Your task to perform on an android device: View the shopping cart on newegg. Search for usb-a to usb-b on newegg, select the first entry, add it to the cart, then select checkout. Image 0: 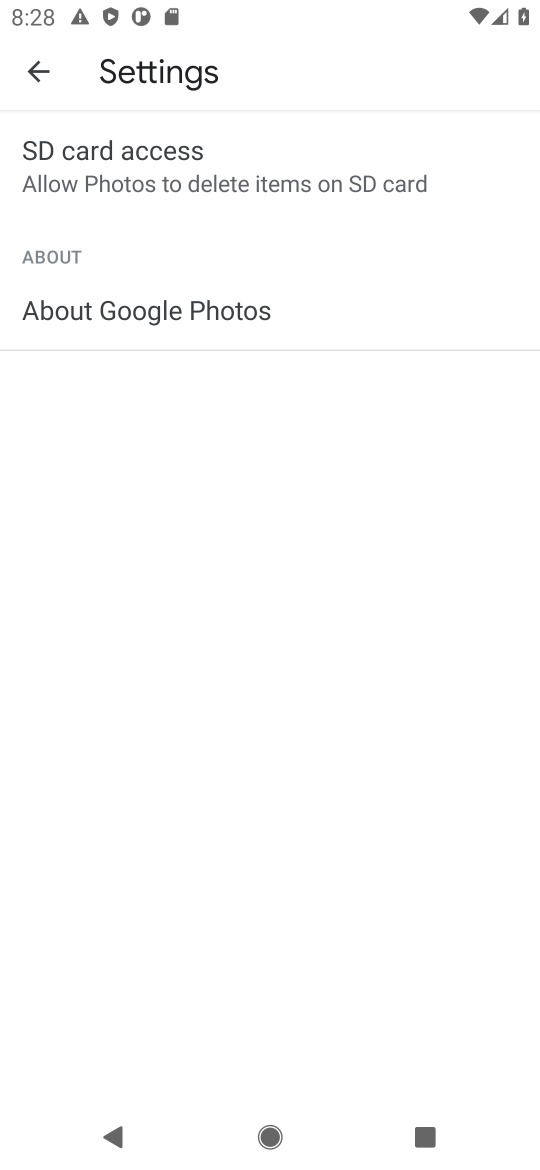
Step 0: press home button
Your task to perform on an android device: View the shopping cart on newegg. Search for usb-a to usb-b on newegg, select the first entry, add it to the cart, then select checkout. Image 1: 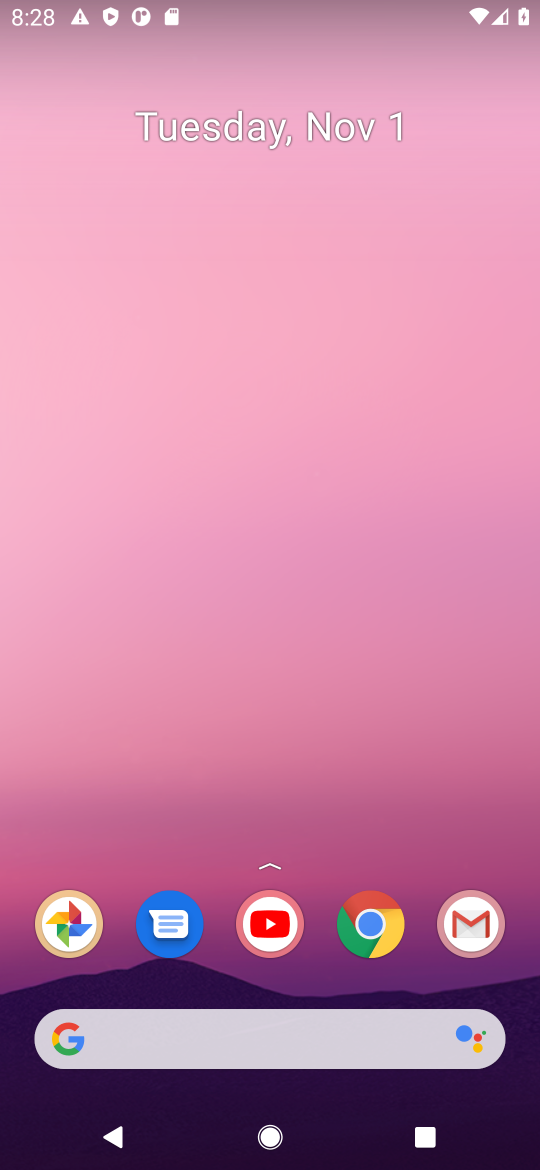
Step 1: click (117, 1046)
Your task to perform on an android device: View the shopping cart on newegg. Search for usb-a to usb-b on newegg, select the first entry, add it to the cart, then select checkout. Image 2: 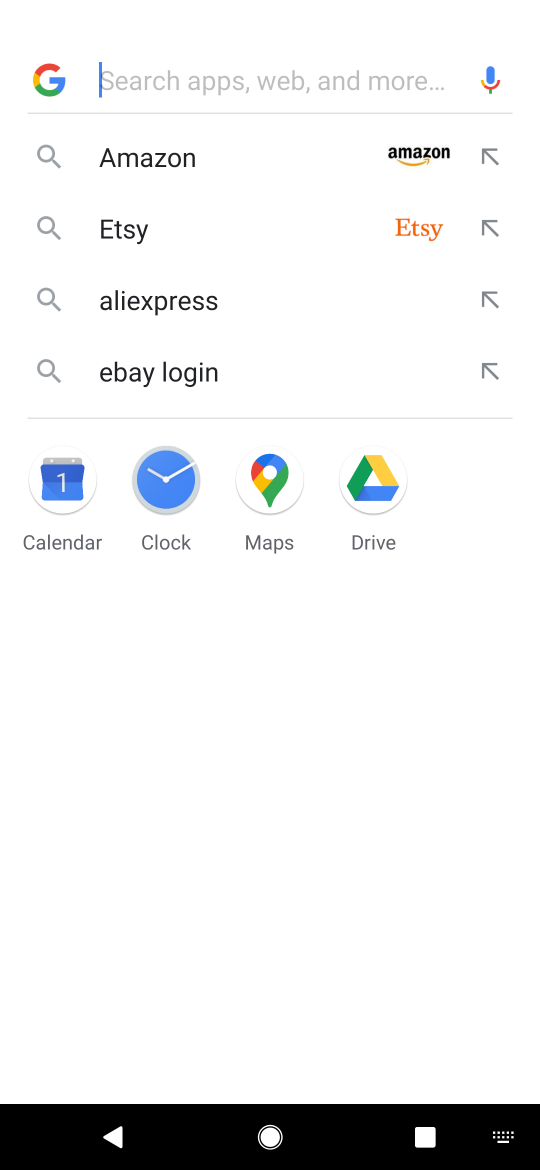
Step 2: type "newegg"
Your task to perform on an android device: View the shopping cart on newegg. Search for usb-a to usb-b on newegg, select the first entry, add it to the cart, then select checkout. Image 3: 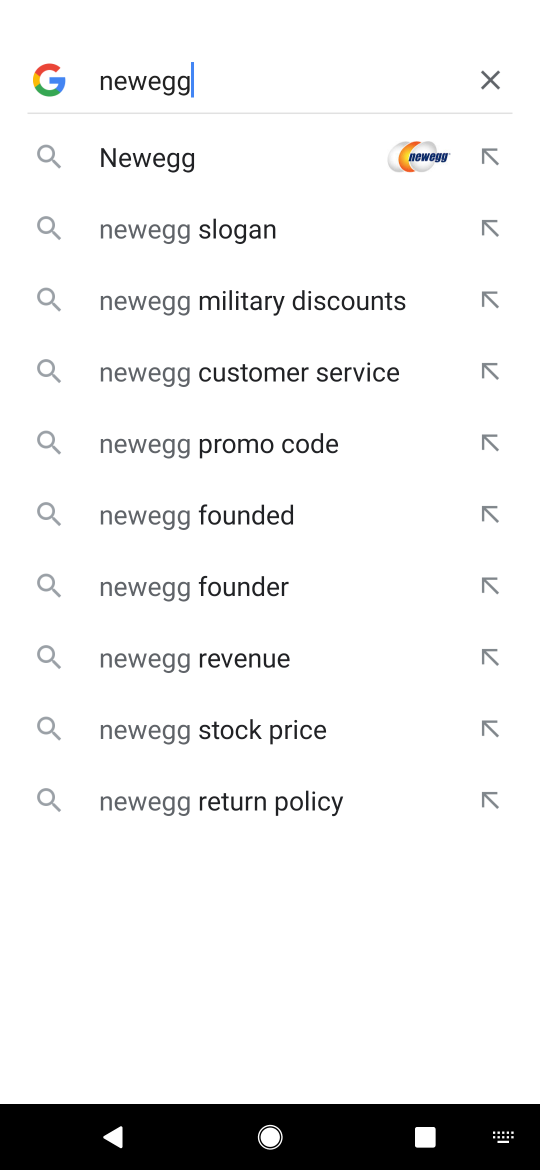
Step 3: press enter
Your task to perform on an android device: View the shopping cart on newegg. Search for usb-a to usb-b on newegg, select the first entry, add it to the cart, then select checkout. Image 4: 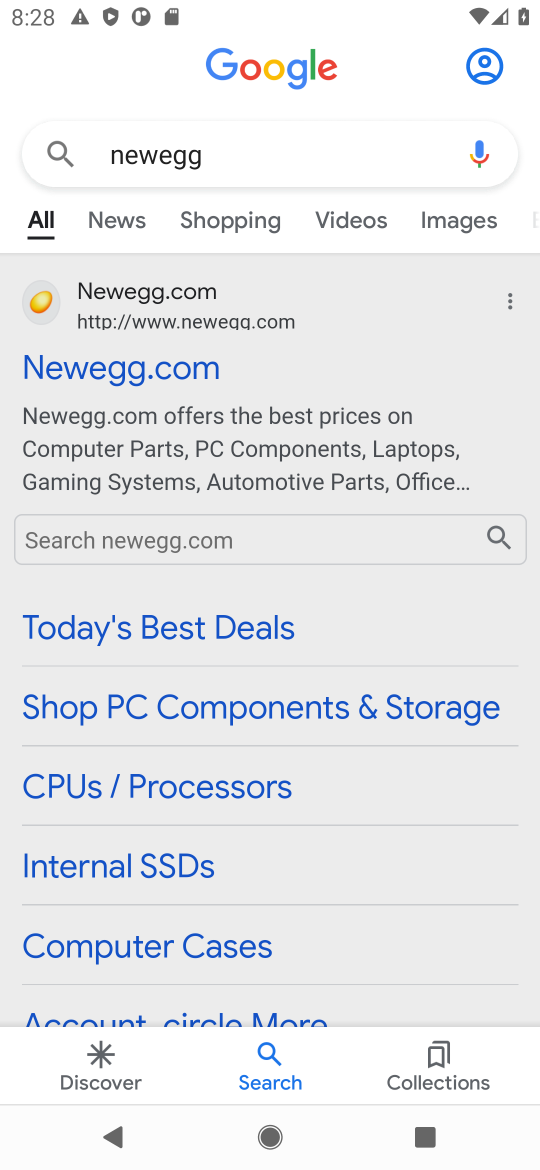
Step 4: click (156, 371)
Your task to perform on an android device: View the shopping cart on newegg. Search for usb-a to usb-b on newegg, select the first entry, add it to the cart, then select checkout. Image 5: 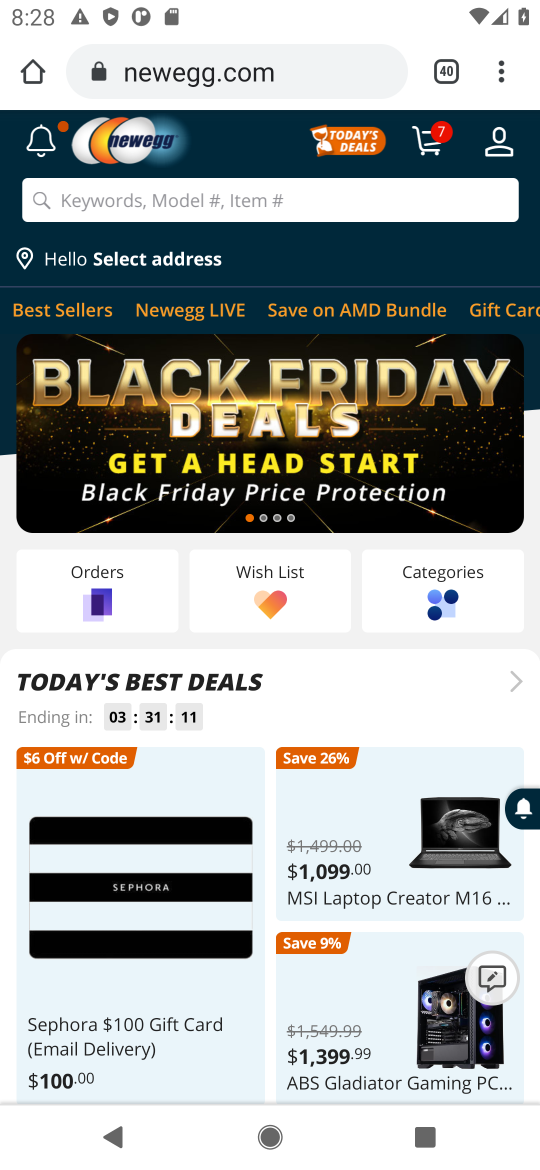
Step 5: click (433, 133)
Your task to perform on an android device: View the shopping cart on newegg. Search for usb-a to usb-b on newegg, select the first entry, add it to the cart, then select checkout. Image 6: 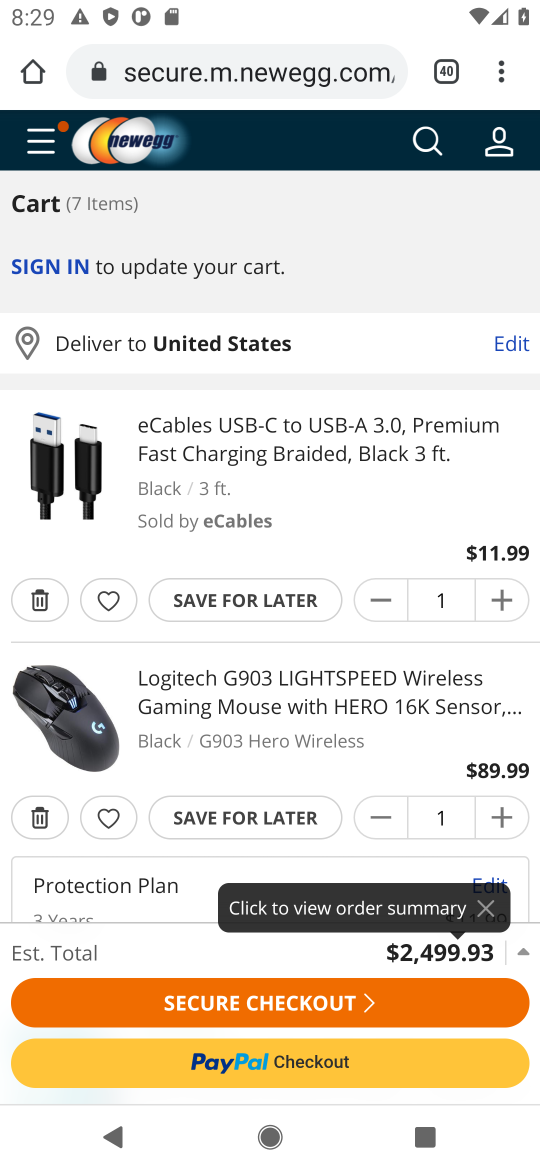
Step 6: click (421, 135)
Your task to perform on an android device: View the shopping cart on newegg. Search for usb-a to usb-b on newegg, select the first entry, add it to the cart, then select checkout. Image 7: 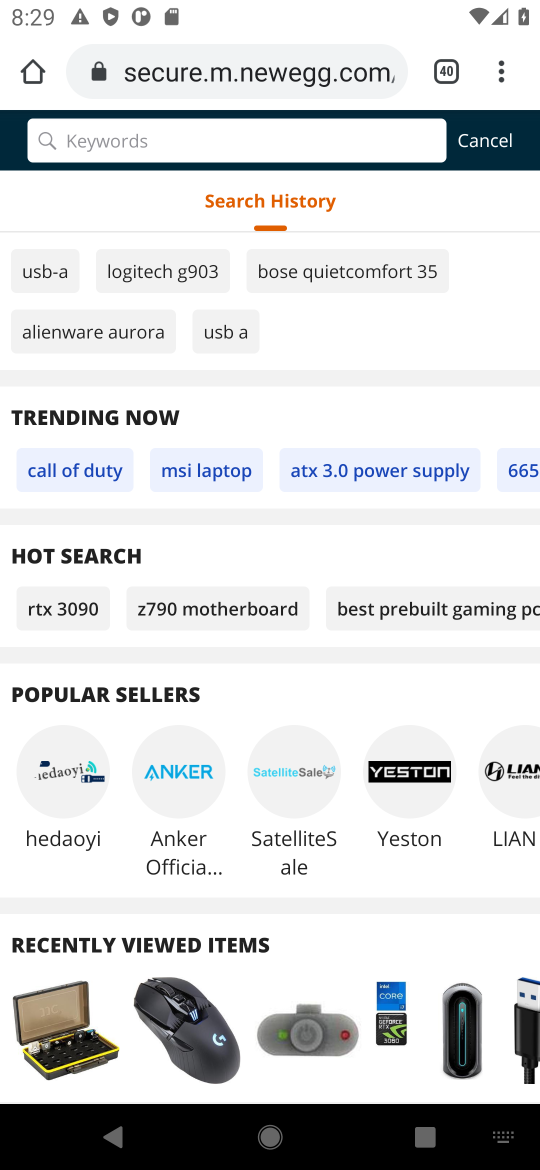
Step 7: type "usb-a to usb-b"
Your task to perform on an android device: View the shopping cart on newegg. Search for usb-a to usb-b on newegg, select the first entry, add it to the cart, then select checkout. Image 8: 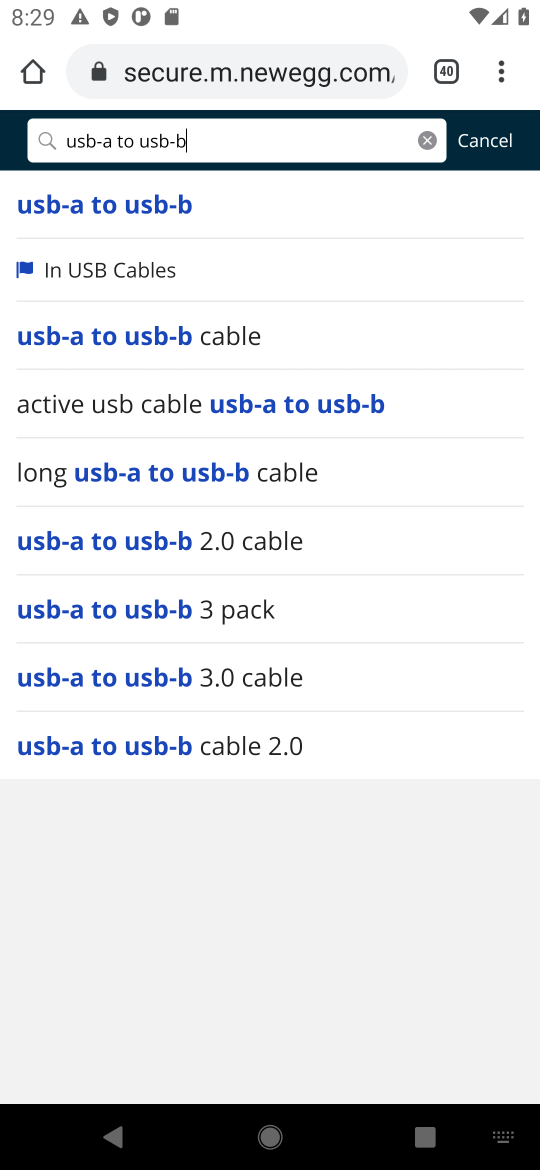
Step 8: click (147, 204)
Your task to perform on an android device: View the shopping cart on newegg. Search for usb-a to usb-b on newegg, select the first entry, add it to the cart, then select checkout. Image 9: 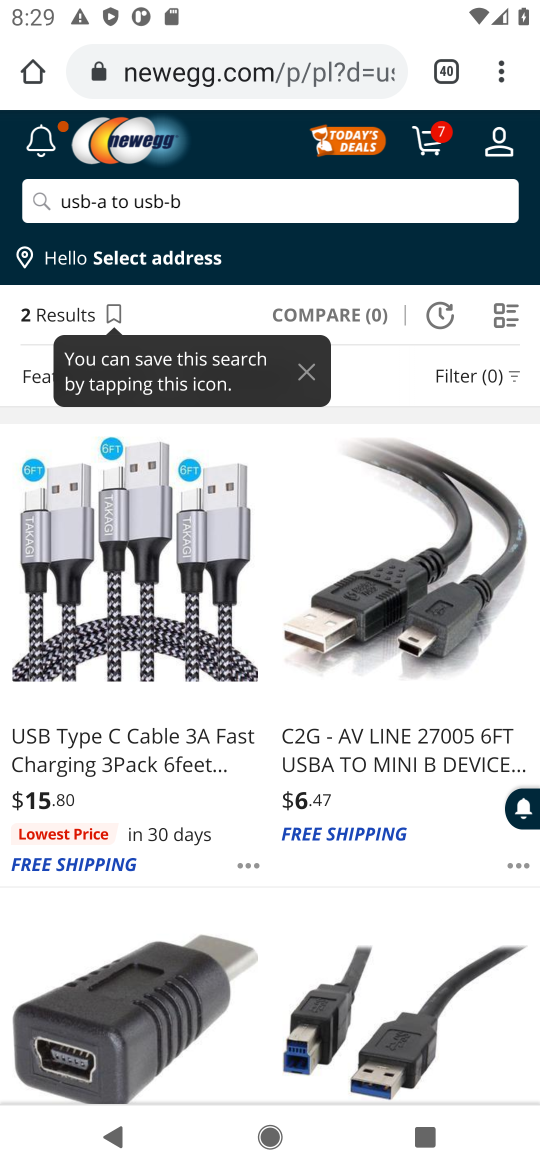
Step 9: drag from (383, 954) to (350, 642)
Your task to perform on an android device: View the shopping cart on newegg. Search for usb-a to usb-b on newegg, select the first entry, add it to the cart, then select checkout. Image 10: 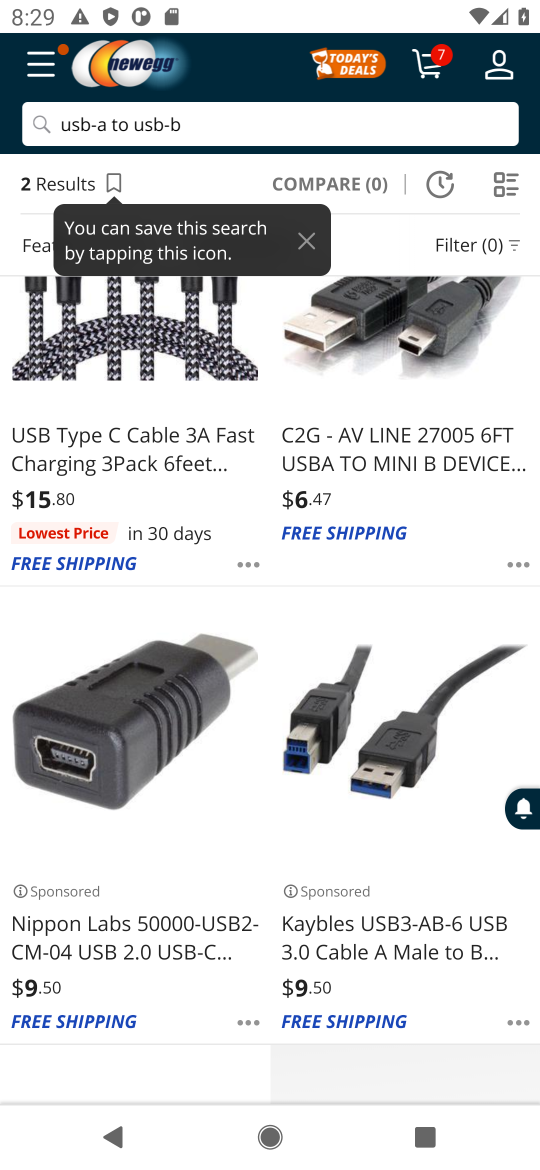
Step 10: click (441, 939)
Your task to perform on an android device: View the shopping cart on newegg. Search for usb-a to usb-b on newegg, select the first entry, add it to the cart, then select checkout. Image 11: 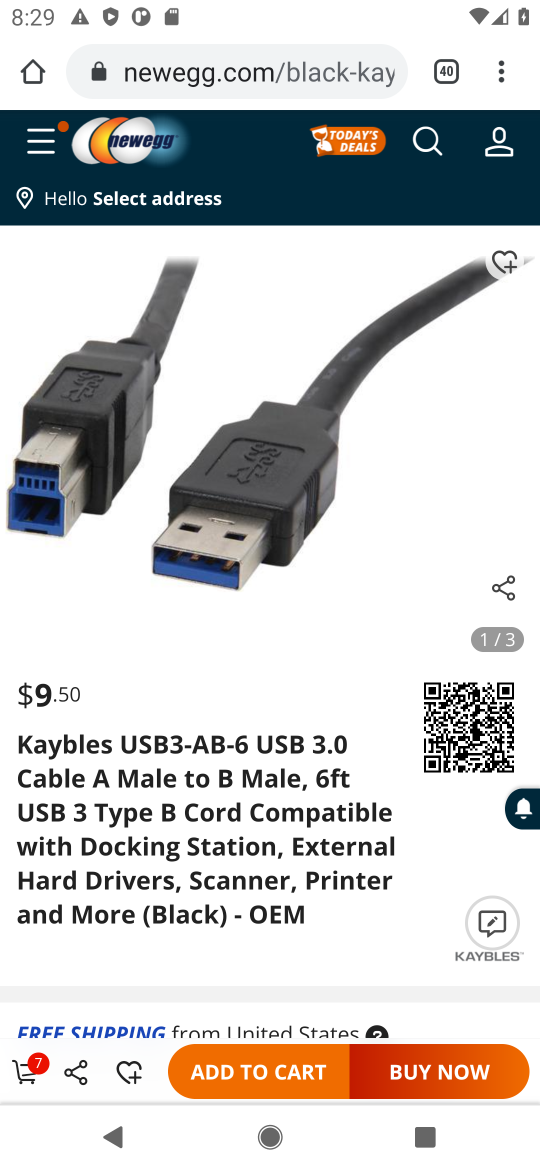
Step 11: click (240, 1067)
Your task to perform on an android device: View the shopping cart on newegg. Search for usb-a to usb-b on newegg, select the first entry, add it to the cart, then select checkout. Image 12: 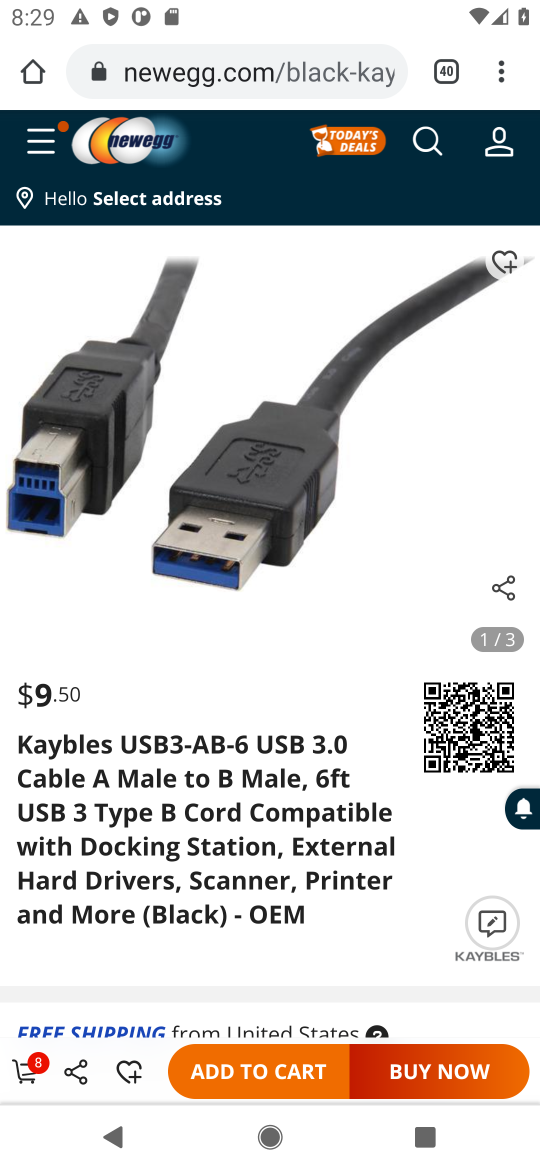
Step 12: click (24, 1064)
Your task to perform on an android device: View the shopping cart on newegg. Search for usb-a to usb-b on newegg, select the first entry, add it to the cart, then select checkout. Image 13: 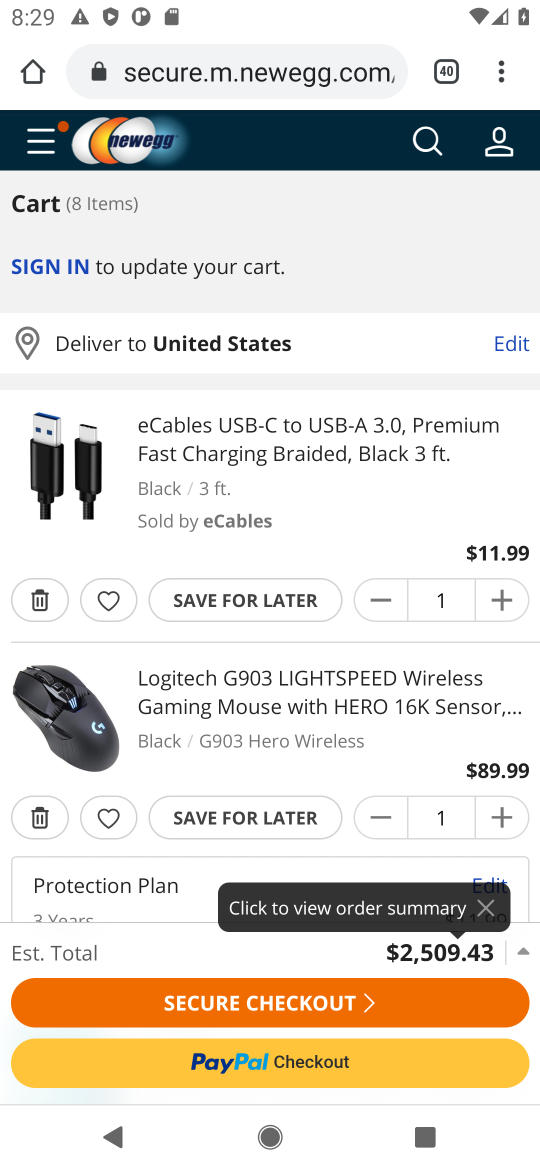
Step 13: click (271, 1002)
Your task to perform on an android device: View the shopping cart on newegg. Search for usb-a to usb-b on newegg, select the first entry, add it to the cart, then select checkout. Image 14: 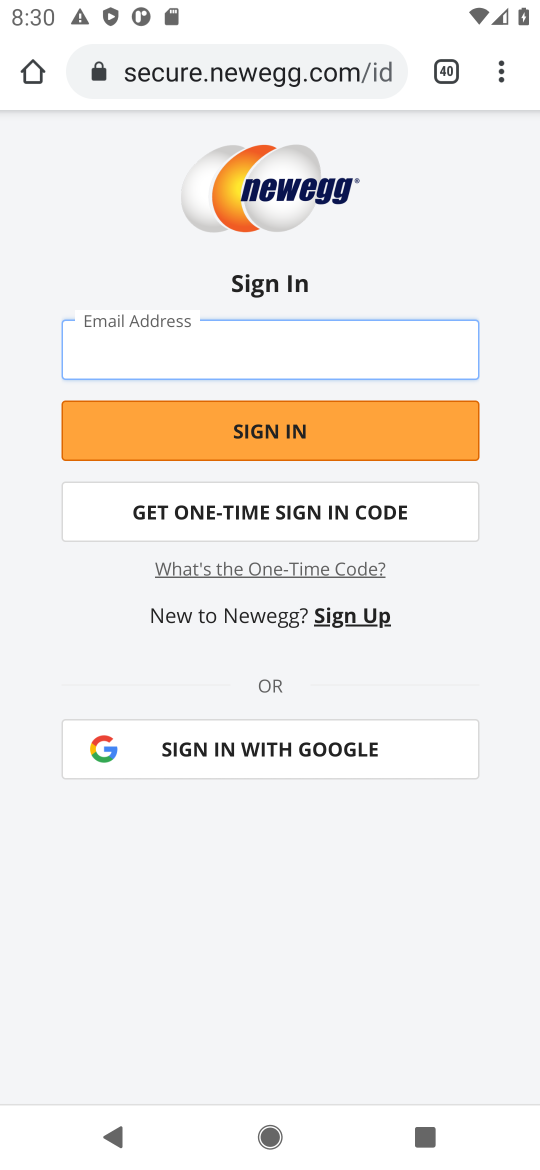
Step 14: task complete